Your task to perform on an android device: show emergency info Image 0: 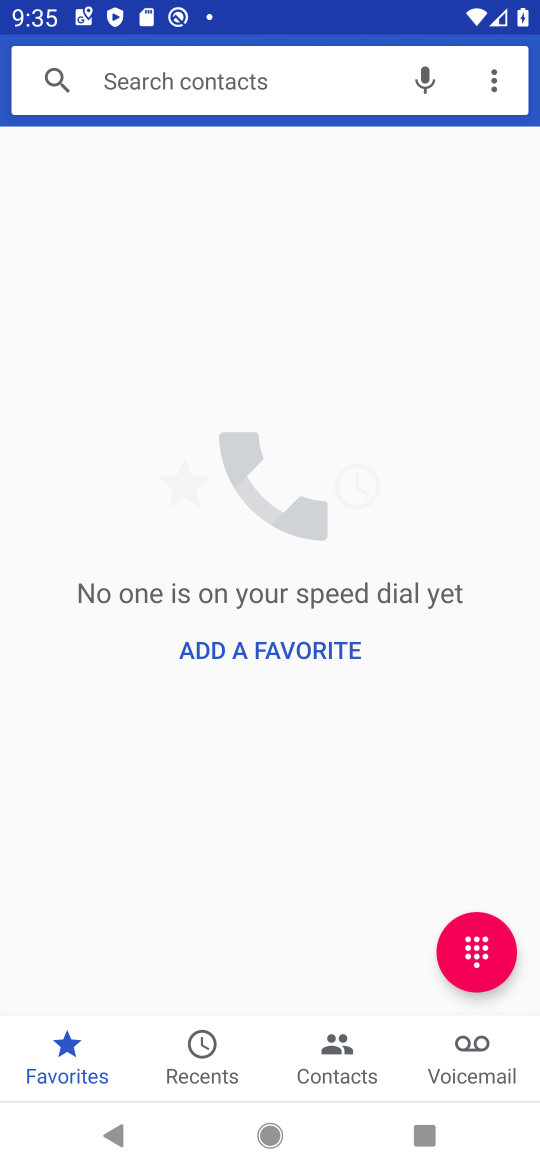
Step 0: press home button
Your task to perform on an android device: show emergency info Image 1: 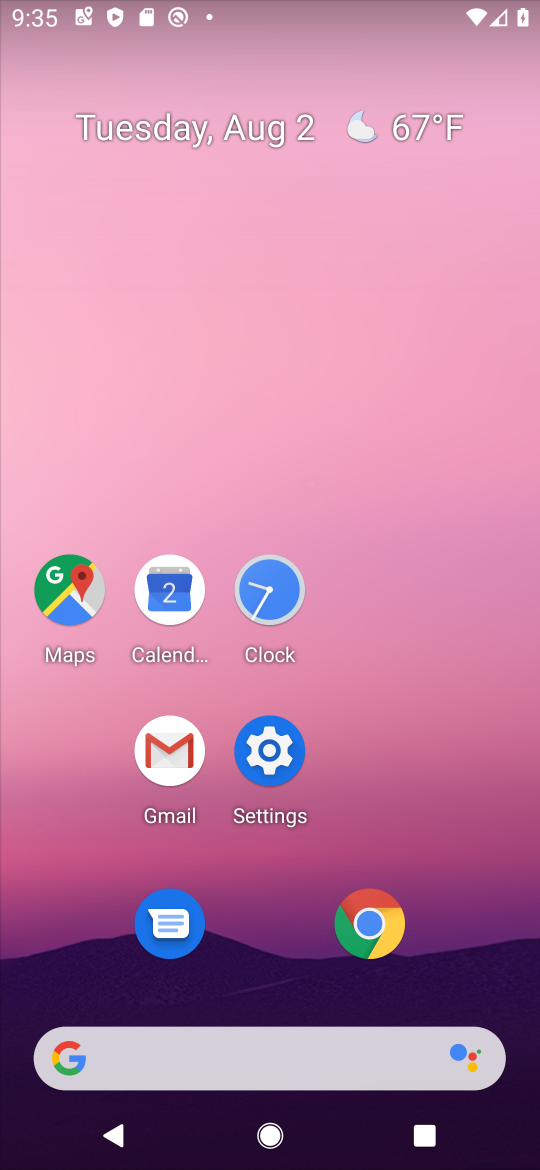
Step 1: click (266, 755)
Your task to perform on an android device: show emergency info Image 2: 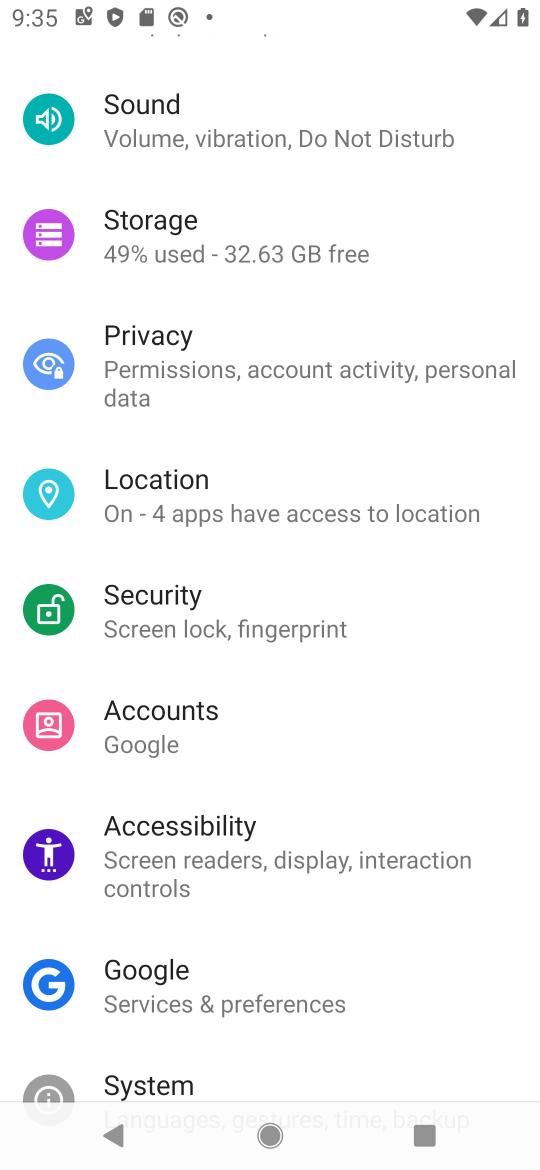
Step 2: drag from (423, 1045) to (387, 513)
Your task to perform on an android device: show emergency info Image 3: 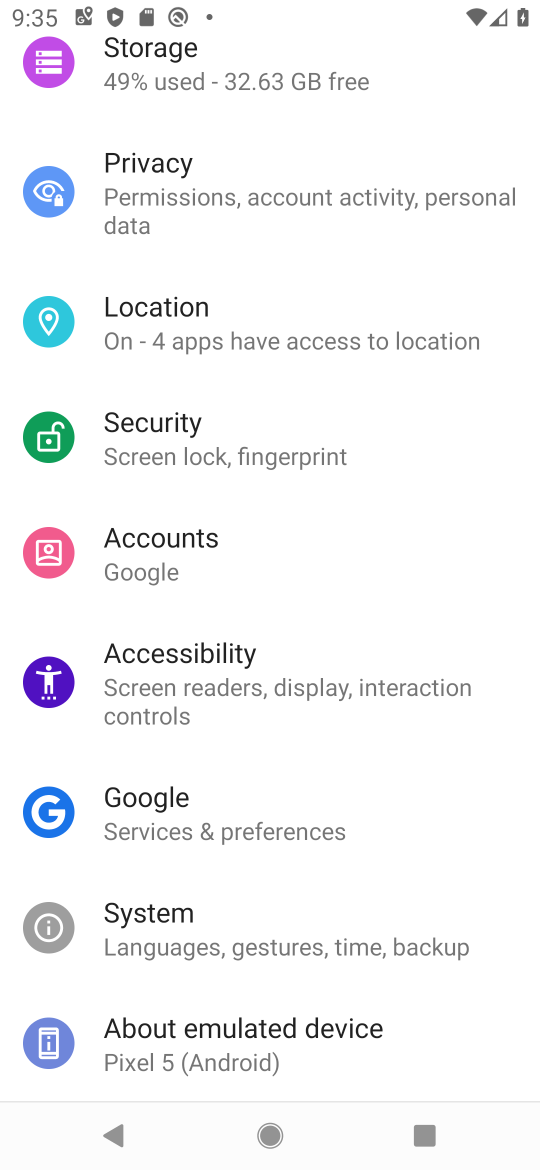
Step 3: click (200, 1034)
Your task to perform on an android device: show emergency info Image 4: 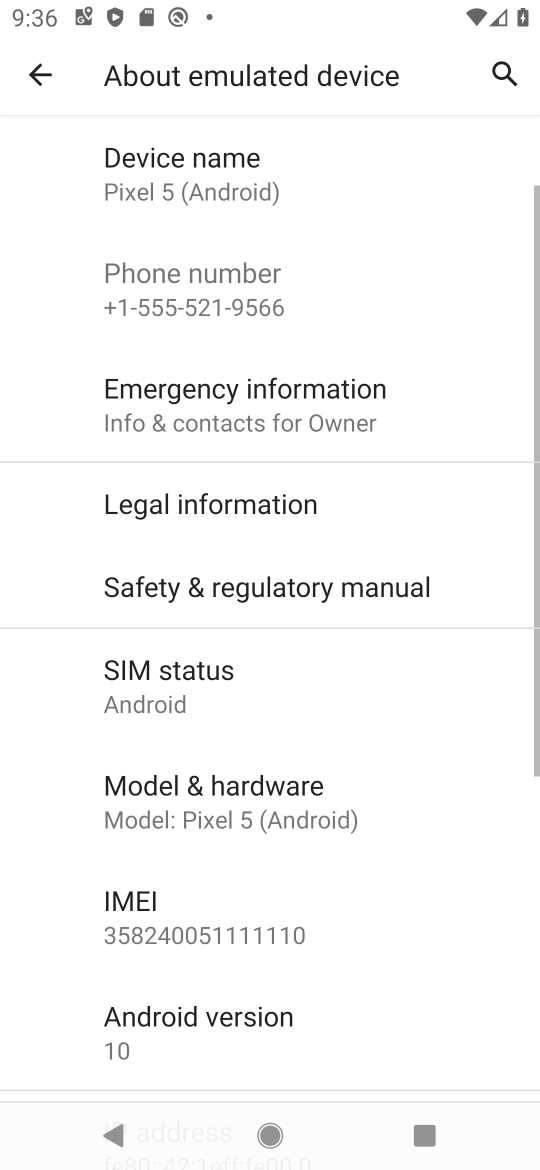
Step 4: click (252, 411)
Your task to perform on an android device: show emergency info Image 5: 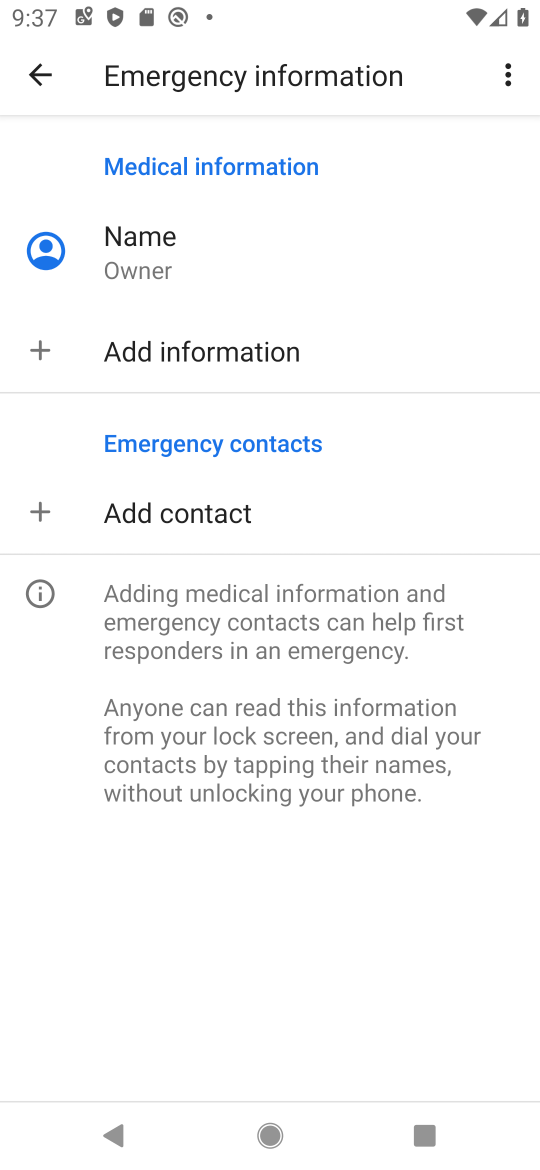
Step 5: task complete